Your task to perform on an android device: Search for Mexican restaurants on Maps Image 0: 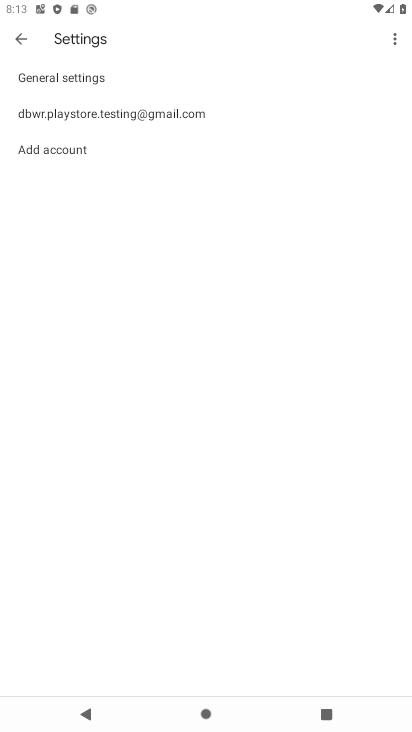
Step 0: press home button
Your task to perform on an android device: Search for Mexican restaurants on Maps Image 1: 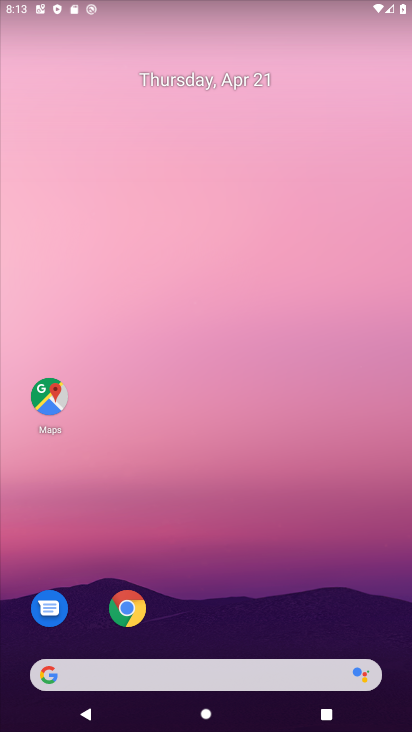
Step 1: click (51, 394)
Your task to perform on an android device: Search for Mexican restaurants on Maps Image 2: 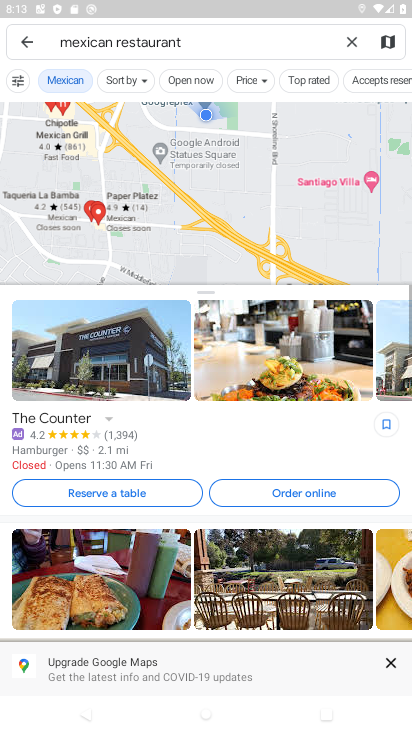
Step 2: task complete